Your task to perform on an android device: Open Chrome and go to settings Image 0: 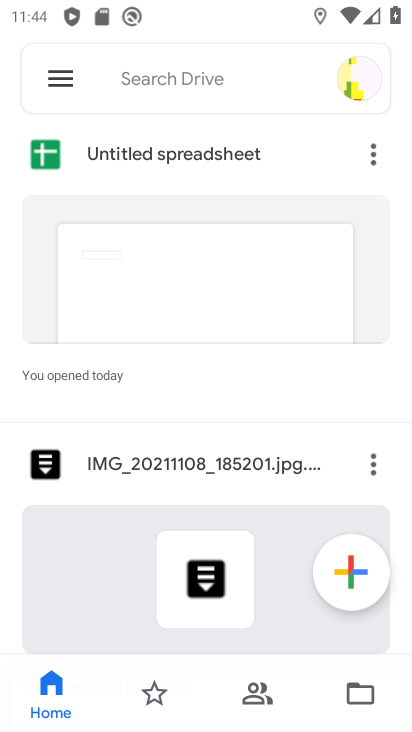
Step 0: press home button
Your task to perform on an android device: Open Chrome and go to settings Image 1: 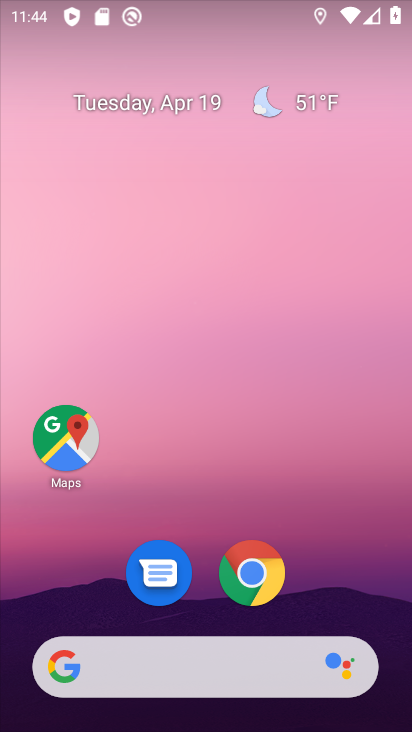
Step 1: click (263, 588)
Your task to perform on an android device: Open Chrome and go to settings Image 2: 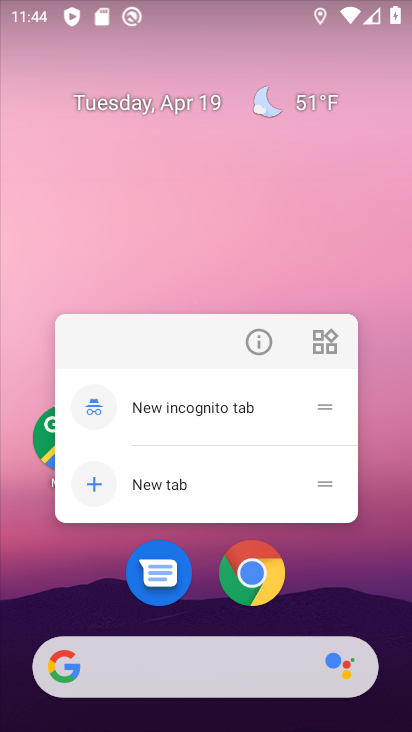
Step 2: click (262, 551)
Your task to perform on an android device: Open Chrome and go to settings Image 3: 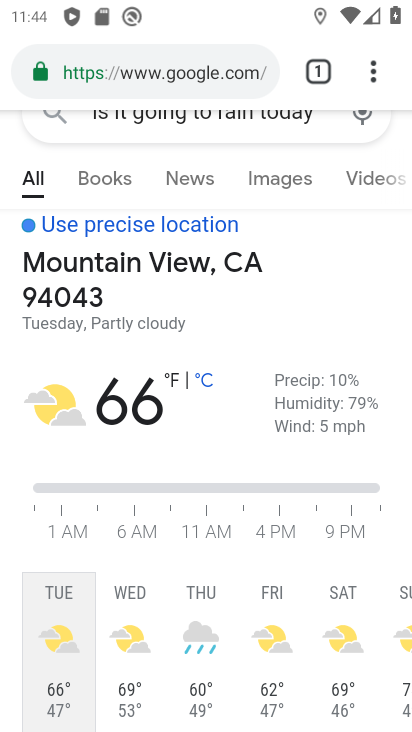
Step 3: click (370, 81)
Your task to perform on an android device: Open Chrome and go to settings Image 4: 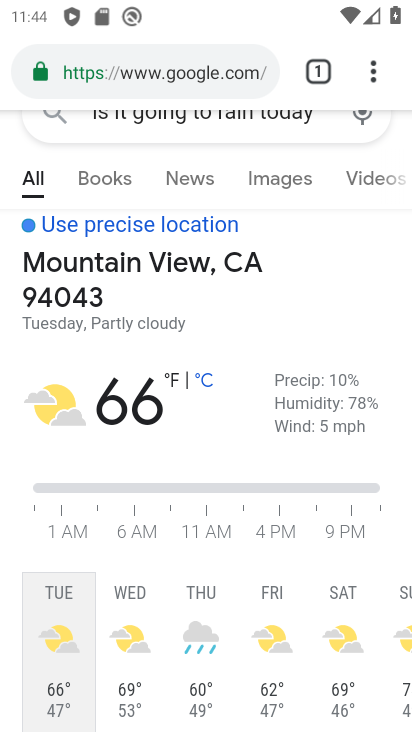
Step 4: task complete